Your task to perform on an android device: See recent photos Image 0: 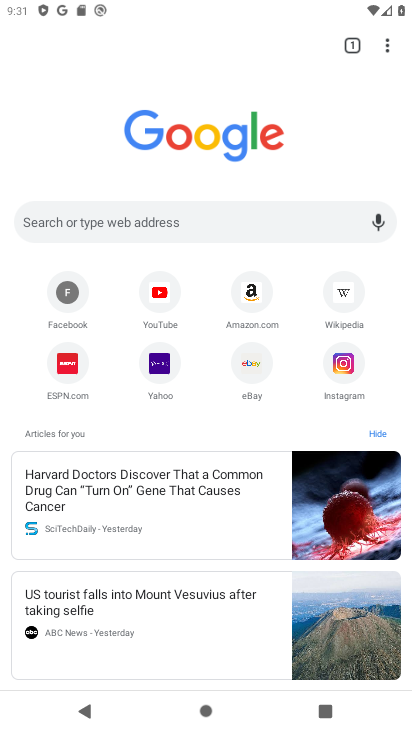
Step 0: press home button
Your task to perform on an android device: See recent photos Image 1: 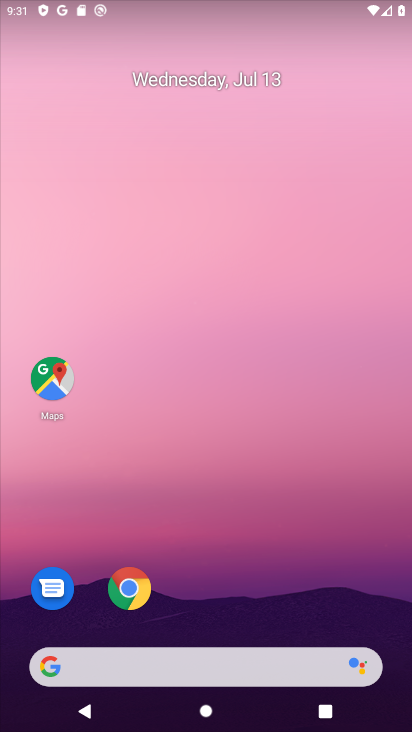
Step 1: drag from (178, 600) to (201, 125)
Your task to perform on an android device: See recent photos Image 2: 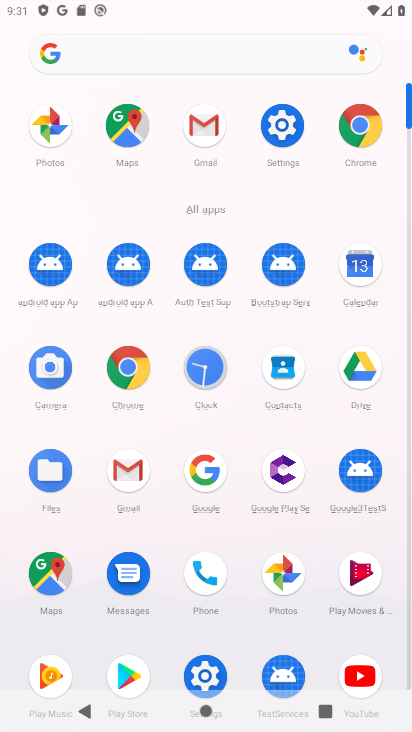
Step 2: click (280, 578)
Your task to perform on an android device: See recent photos Image 3: 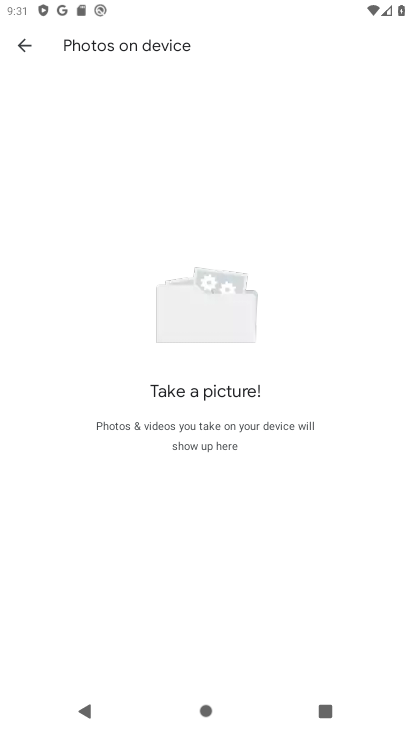
Step 3: task complete